Your task to perform on an android device: Search for seafood restaurants on Google Maps Image 0: 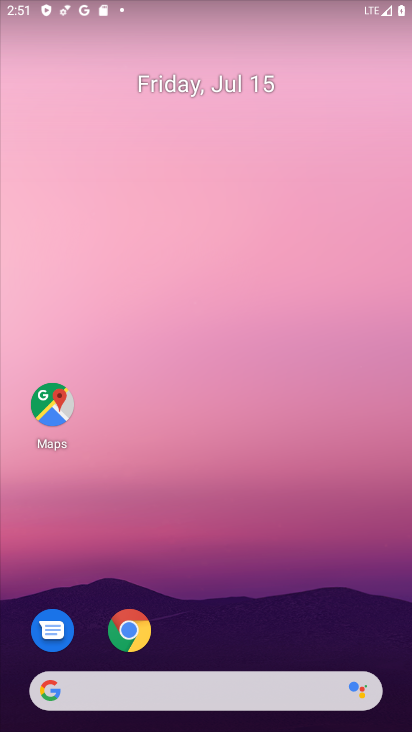
Step 0: drag from (251, 678) to (243, 95)
Your task to perform on an android device: Search for seafood restaurants on Google Maps Image 1: 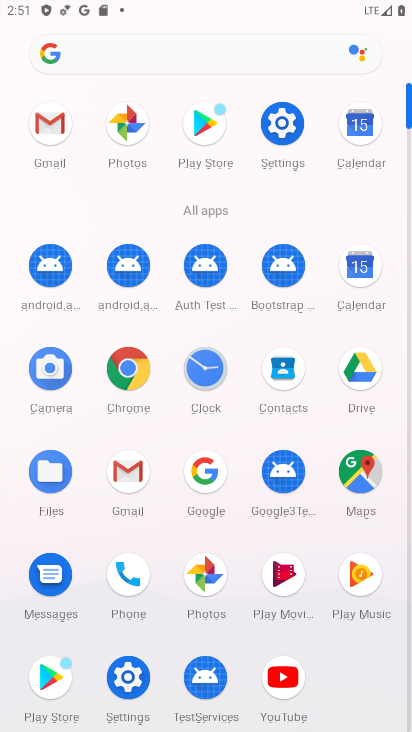
Step 1: click (358, 473)
Your task to perform on an android device: Search for seafood restaurants on Google Maps Image 2: 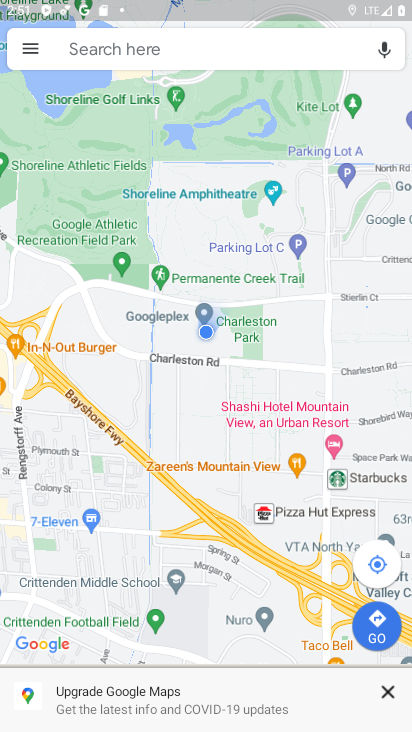
Step 2: click (142, 54)
Your task to perform on an android device: Search for seafood restaurants on Google Maps Image 3: 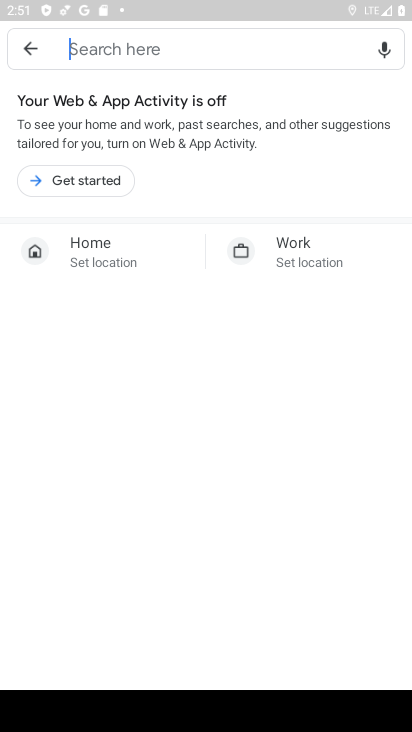
Step 3: type "seafood restaurants"
Your task to perform on an android device: Search for seafood restaurants on Google Maps Image 4: 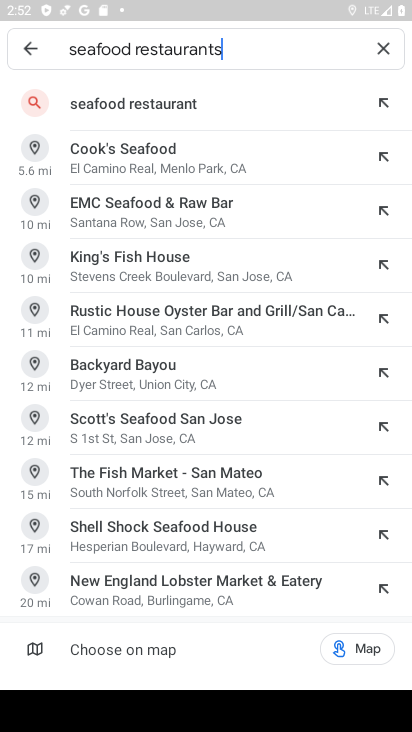
Step 4: click (100, 96)
Your task to perform on an android device: Search for seafood restaurants on Google Maps Image 5: 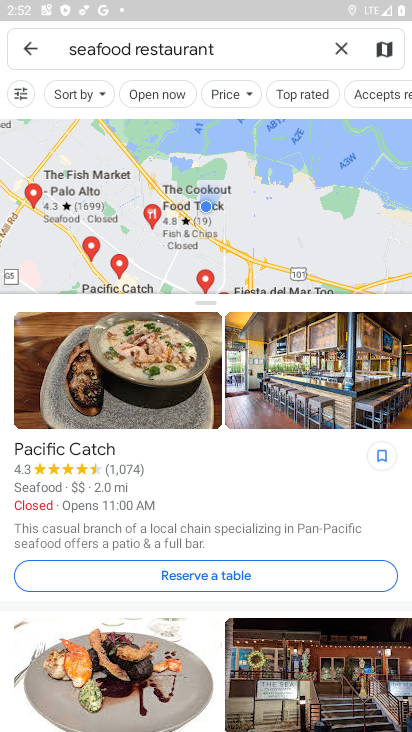
Step 5: task complete